Your task to perform on an android device: change the upload size in google photos Image 0: 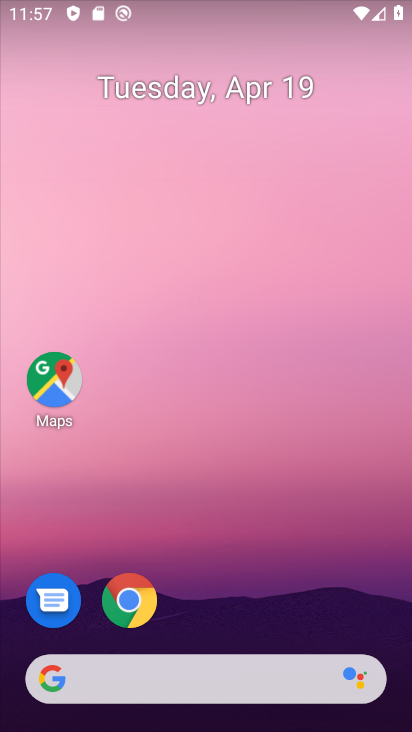
Step 0: drag from (321, 517) to (229, 27)
Your task to perform on an android device: change the upload size in google photos Image 1: 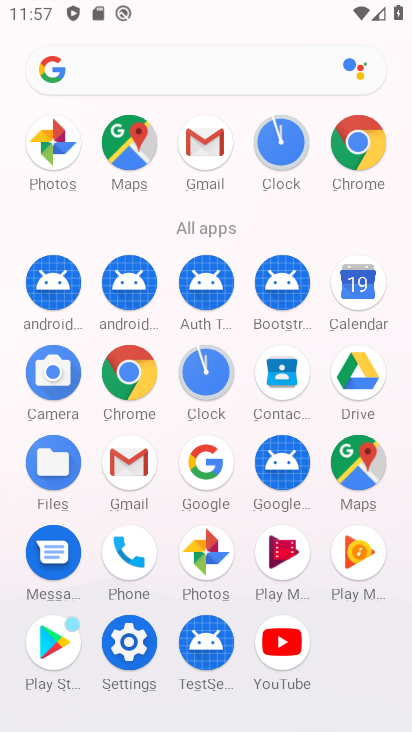
Step 1: click (212, 548)
Your task to perform on an android device: change the upload size in google photos Image 2: 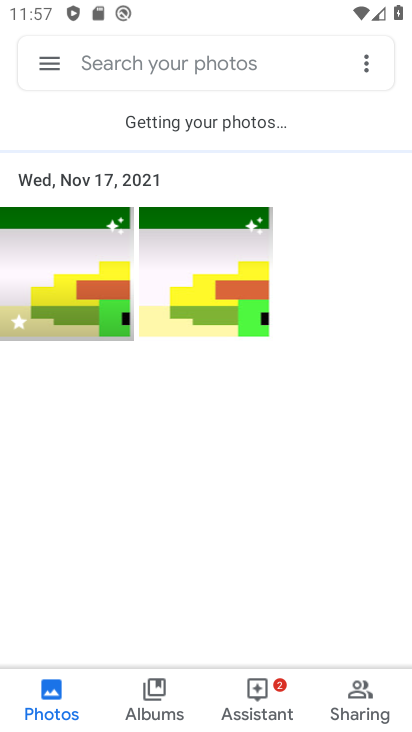
Step 2: click (48, 57)
Your task to perform on an android device: change the upload size in google photos Image 3: 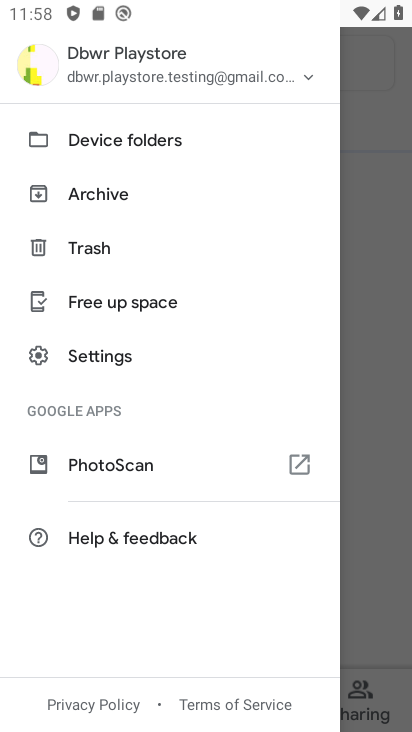
Step 3: click (129, 369)
Your task to perform on an android device: change the upload size in google photos Image 4: 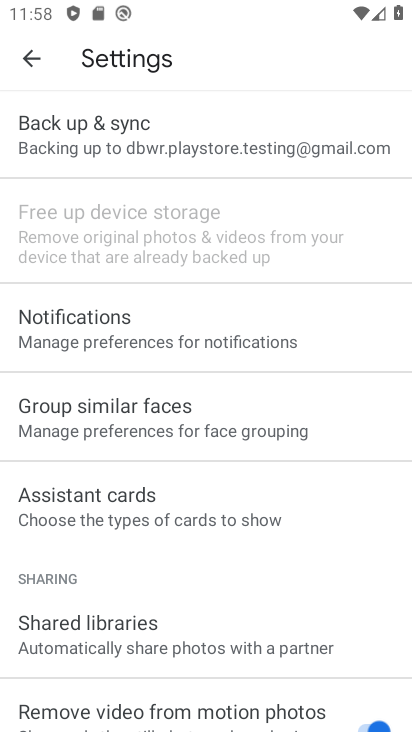
Step 4: drag from (193, 476) to (193, 172)
Your task to perform on an android device: change the upload size in google photos Image 5: 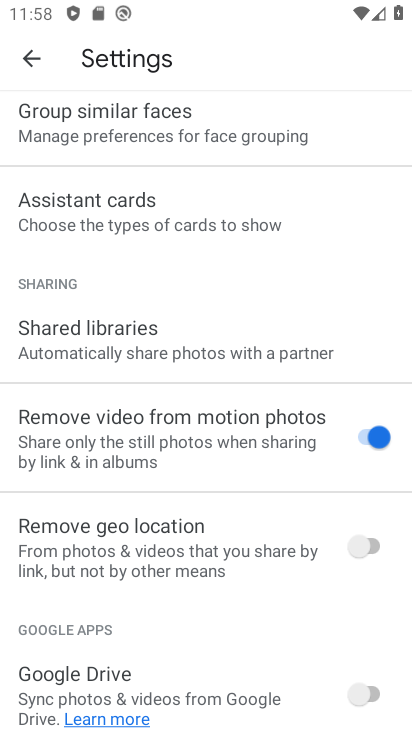
Step 5: drag from (172, 561) to (174, 163)
Your task to perform on an android device: change the upload size in google photos Image 6: 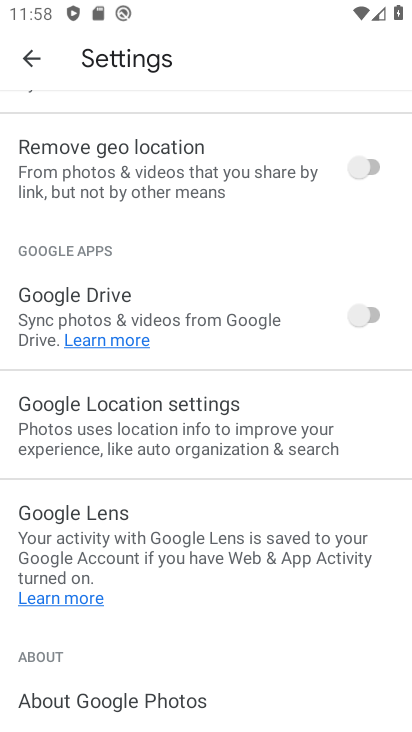
Step 6: drag from (180, 455) to (189, 145)
Your task to perform on an android device: change the upload size in google photos Image 7: 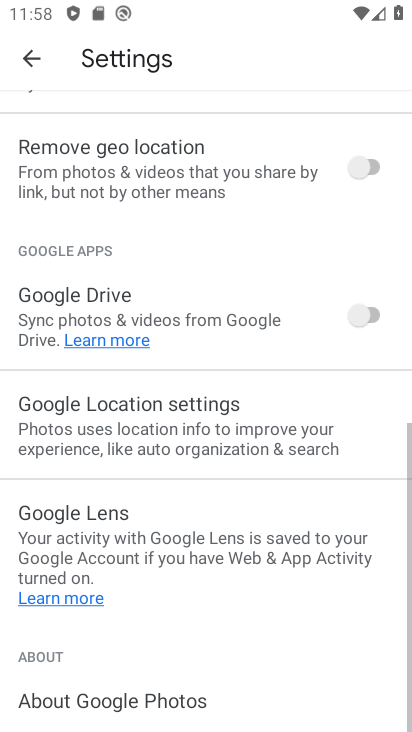
Step 7: drag from (200, 278) to (188, 550)
Your task to perform on an android device: change the upload size in google photos Image 8: 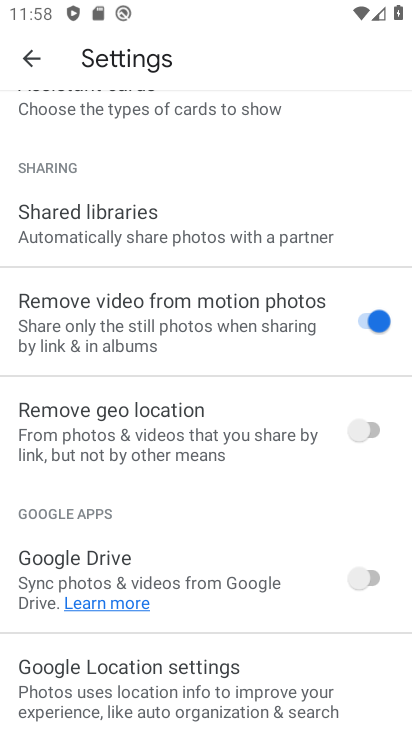
Step 8: drag from (202, 278) to (199, 489)
Your task to perform on an android device: change the upload size in google photos Image 9: 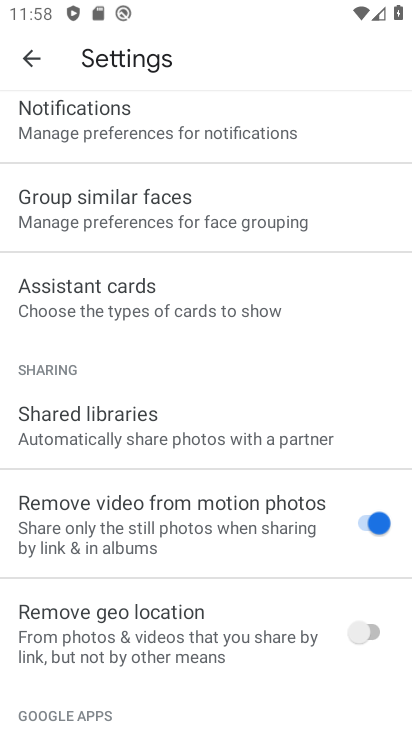
Step 9: drag from (201, 260) to (189, 510)
Your task to perform on an android device: change the upload size in google photos Image 10: 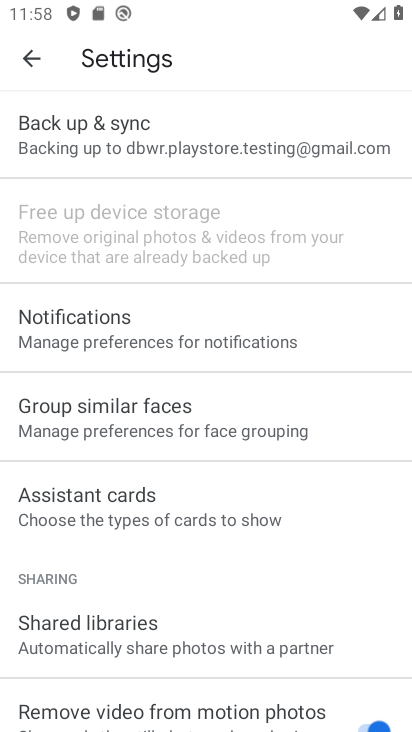
Step 10: click (194, 136)
Your task to perform on an android device: change the upload size in google photos Image 11: 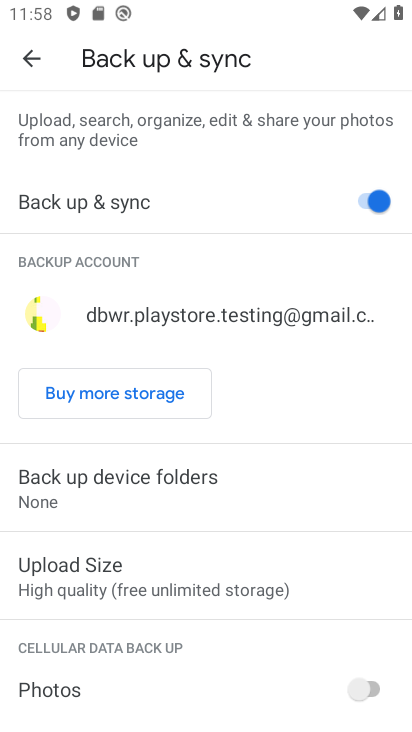
Step 11: click (198, 584)
Your task to perform on an android device: change the upload size in google photos Image 12: 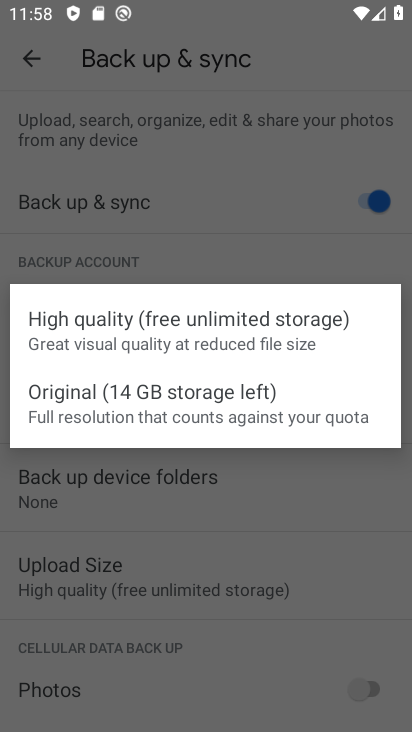
Step 12: click (187, 388)
Your task to perform on an android device: change the upload size in google photos Image 13: 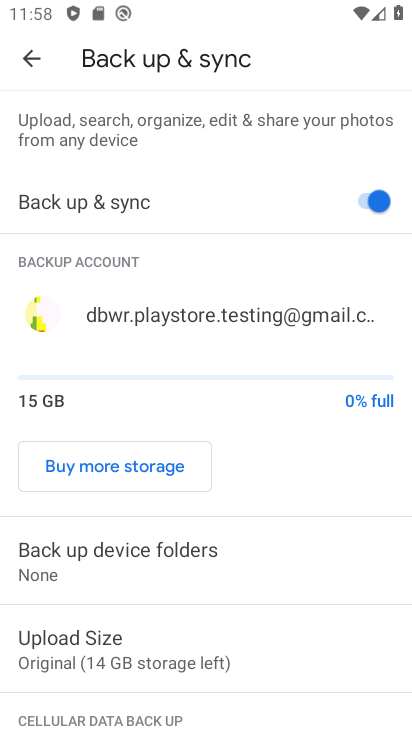
Step 13: task complete